Your task to perform on an android device: delete browsing data in the chrome app Image 0: 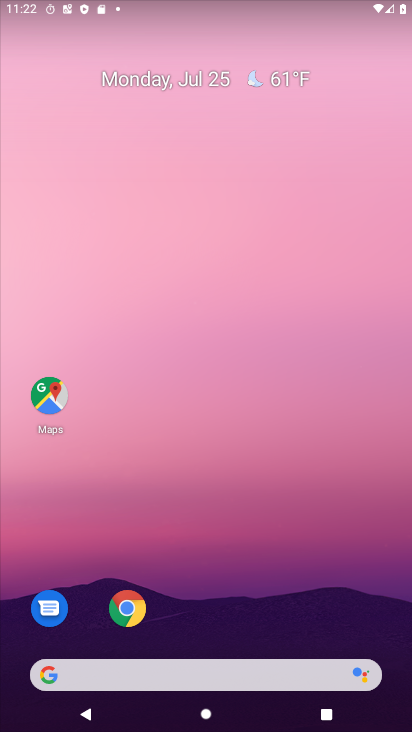
Step 0: drag from (288, 560) to (277, 0)
Your task to perform on an android device: delete browsing data in the chrome app Image 1: 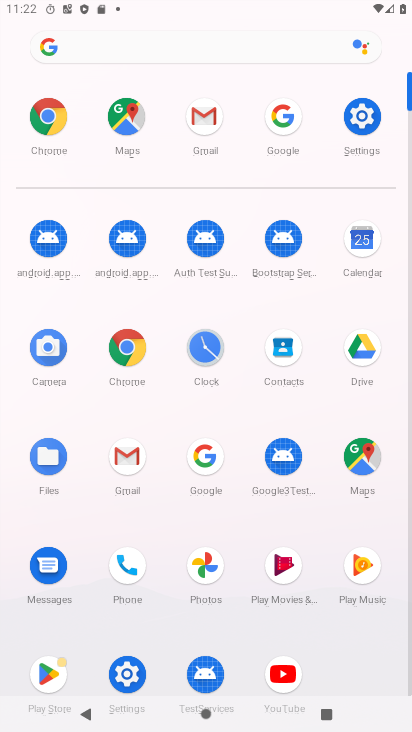
Step 1: click (35, 110)
Your task to perform on an android device: delete browsing data in the chrome app Image 2: 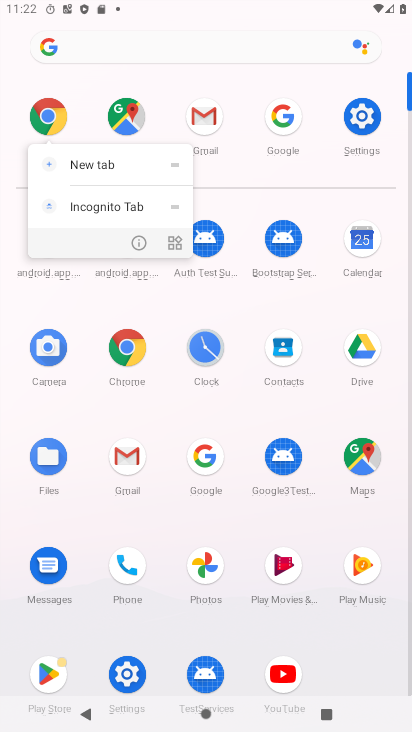
Step 2: click (38, 113)
Your task to perform on an android device: delete browsing data in the chrome app Image 3: 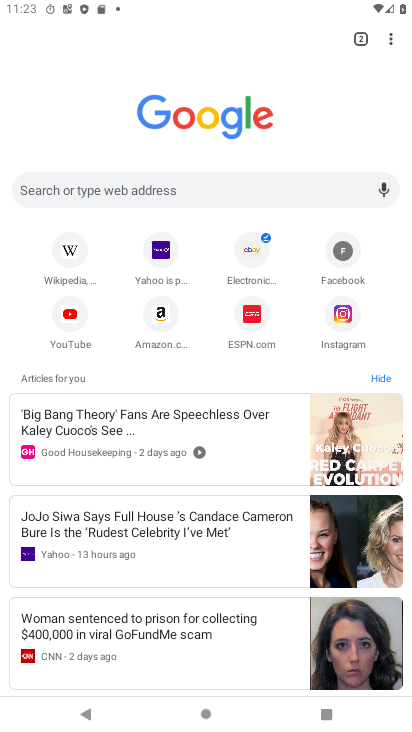
Step 3: drag from (389, 37) to (270, 221)
Your task to perform on an android device: delete browsing data in the chrome app Image 4: 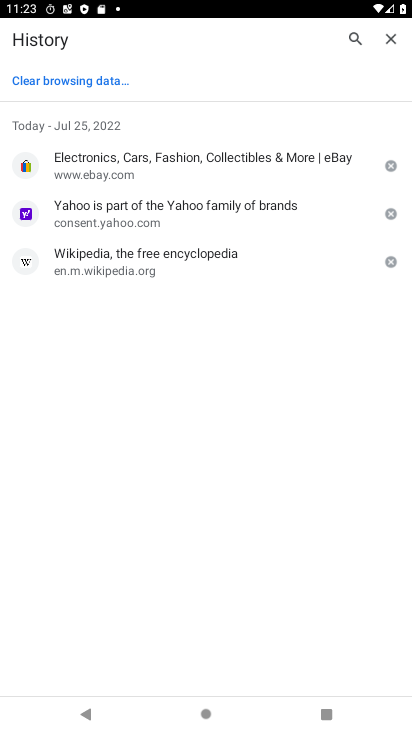
Step 4: click (72, 79)
Your task to perform on an android device: delete browsing data in the chrome app Image 5: 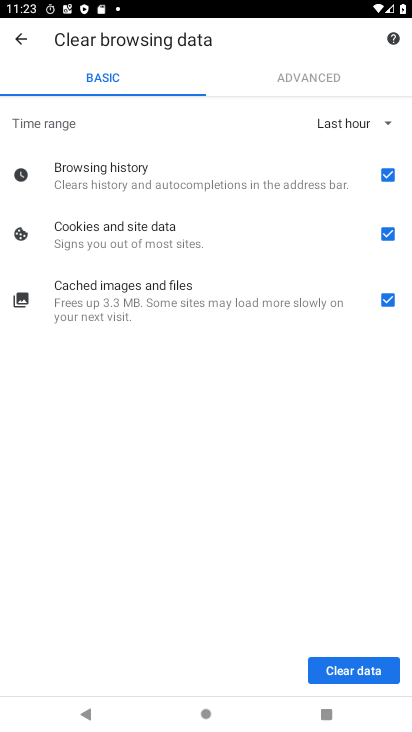
Step 5: click (390, 227)
Your task to perform on an android device: delete browsing data in the chrome app Image 6: 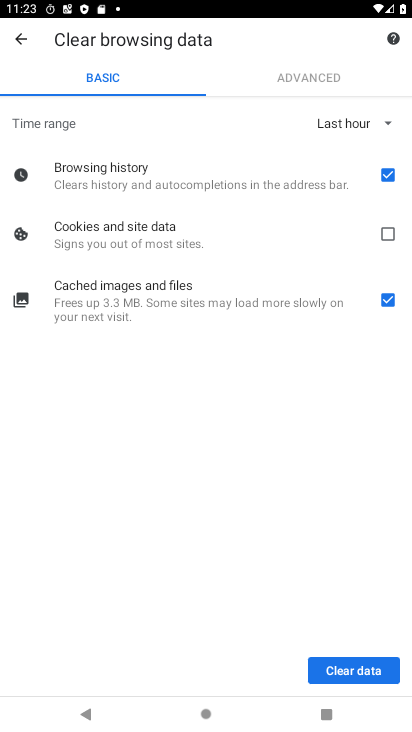
Step 6: click (390, 312)
Your task to perform on an android device: delete browsing data in the chrome app Image 7: 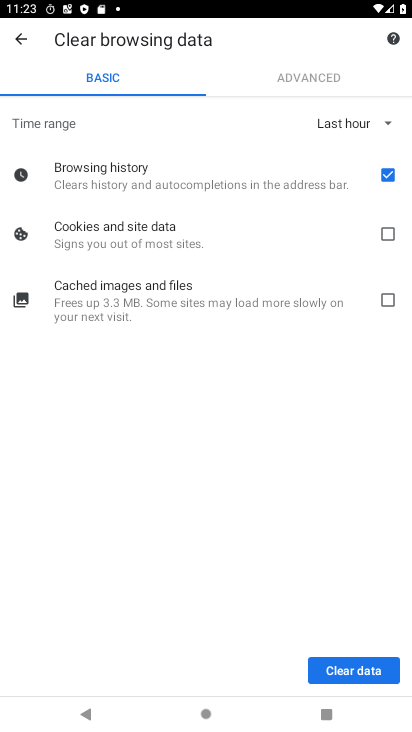
Step 7: click (358, 671)
Your task to perform on an android device: delete browsing data in the chrome app Image 8: 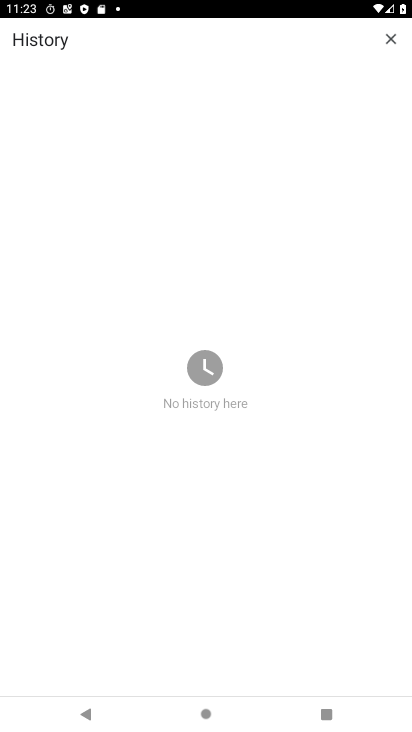
Step 8: task complete